Your task to perform on an android device: turn notification dots on Image 0: 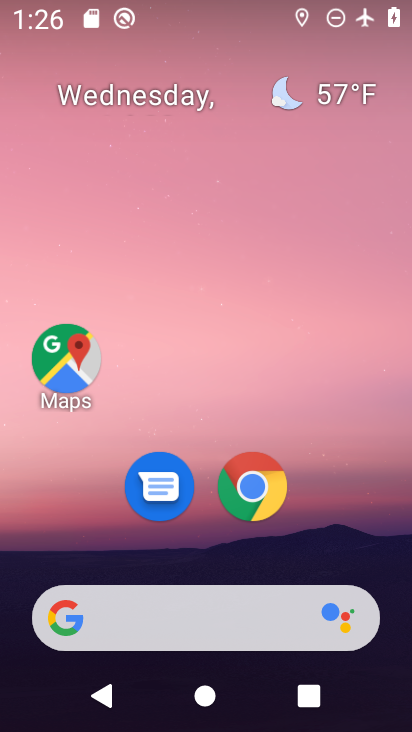
Step 0: drag from (331, 455) to (356, 152)
Your task to perform on an android device: turn notification dots on Image 1: 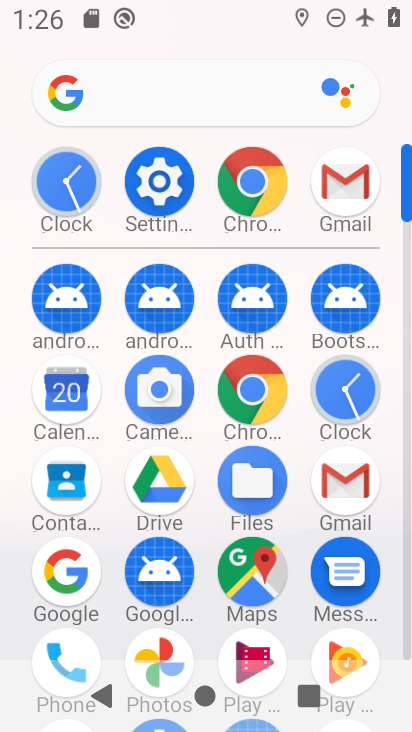
Step 1: click (176, 188)
Your task to perform on an android device: turn notification dots on Image 2: 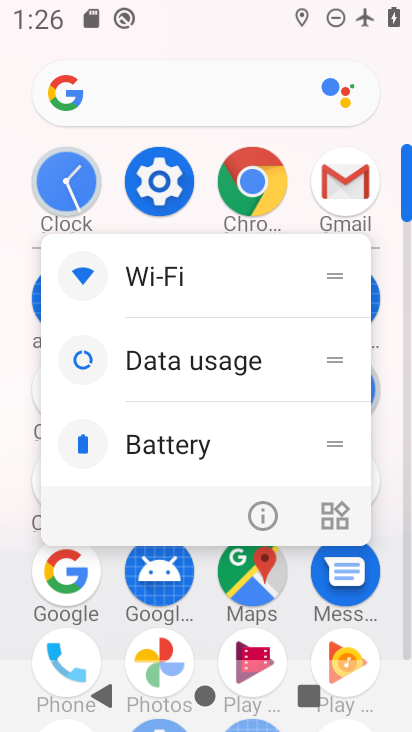
Step 2: click (176, 188)
Your task to perform on an android device: turn notification dots on Image 3: 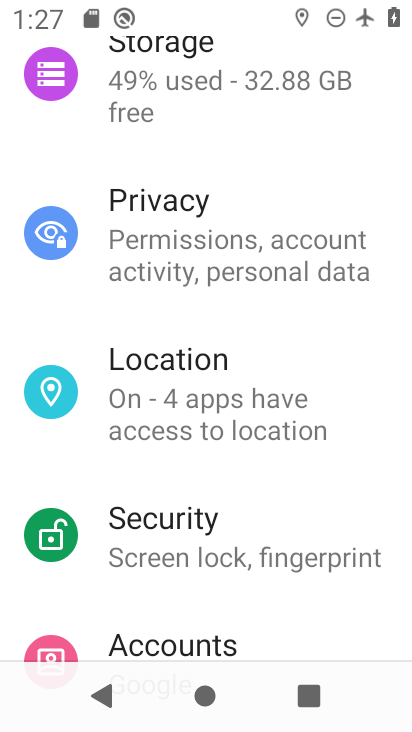
Step 3: drag from (370, 201) to (370, 323)
Your task to perform on an android device: turn notification dots on Image 4: 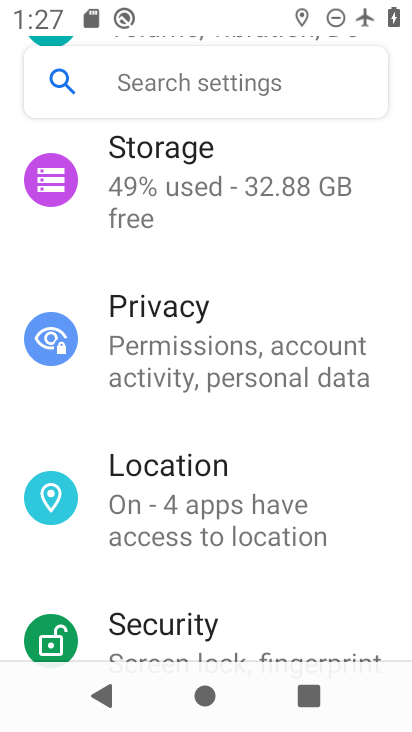
Step 4: drag from (373, 216) to (373, 321)
Your task to perform on an android device: turn notification dots on Image 5: 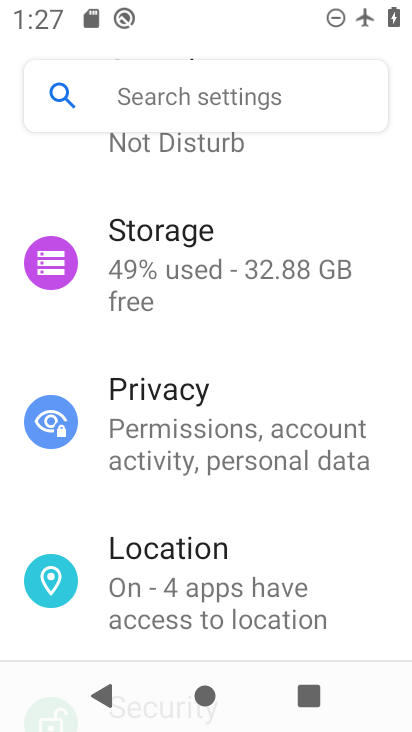
Step 5: drag from (368, 195) to (369, 350)
Your task to perform on an android device: turn notification dots on Image 6: 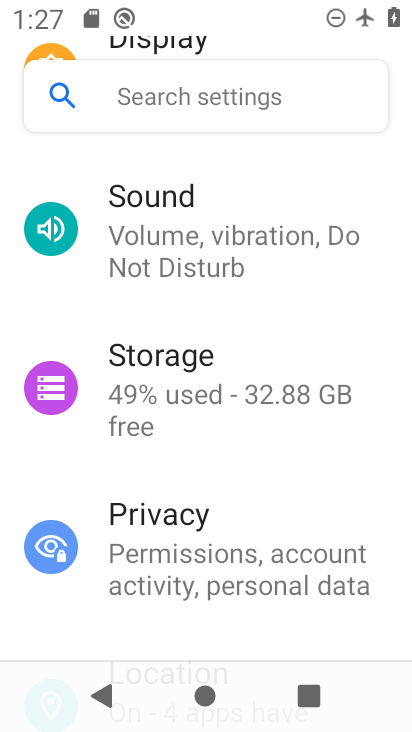
Step 6: drag from (382, 207) to (380, 386)
Your task to perform on an android device: turn notification dots on Image 7: 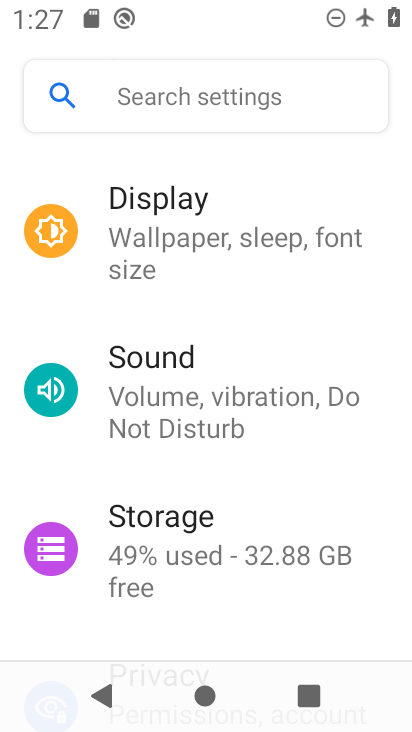
Step 7: drag from (377, 203) to (368, 354)
Your task to perform on an android device: turn notification dots on Image 8: 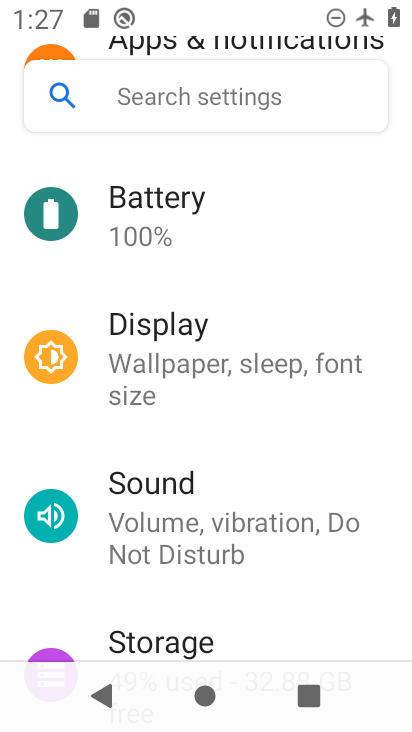
Step 8: drag from (350, 194) to (341, 396)
Your task to perform on an android device: turn notification dots on Image 9: 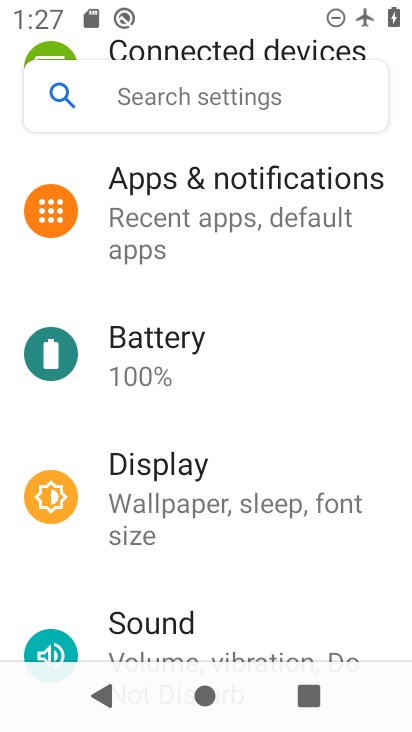
Step 9: drag from (386, 207) to (383, 371)
Your task to perform on an android device: turn notification dots on Image 10: 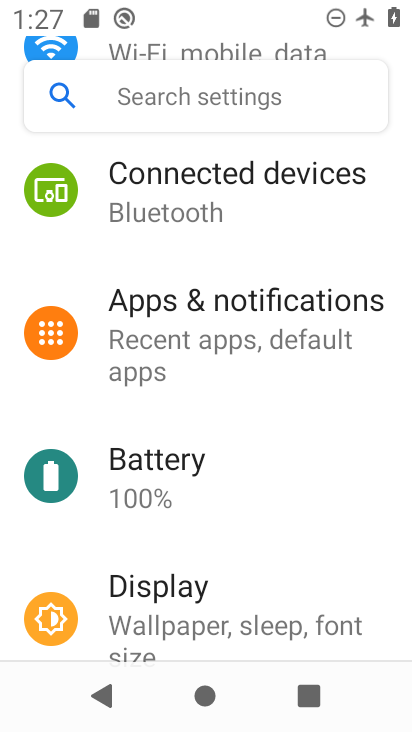
Step 10: drag from (369, 215) to (369, 356)
Your task to perform on an android device: turn notification dots on Image 11: 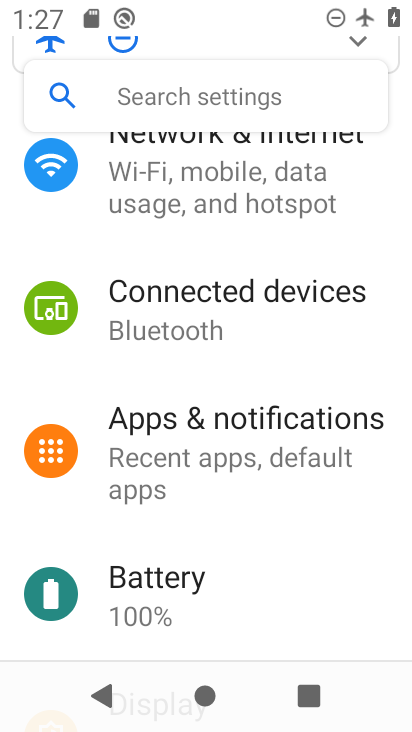
Step 11: click (329, 439)
Your task to perform on an android device: turn notification dots on Image 12: 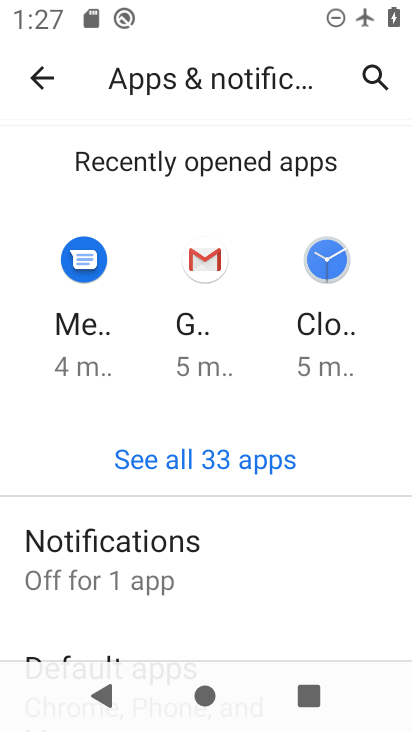
Step 12: click (225, 562)
Your task to perform on an android device: turn notification dots on Image 13: 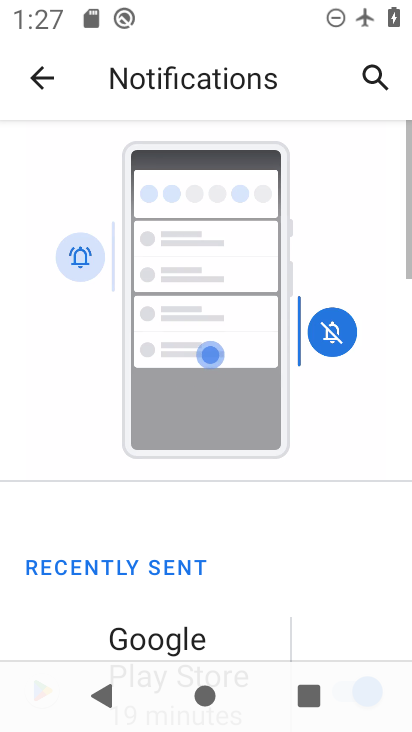
Step 13: drag from (294, 560) to (305, 441)
Your task to perform on an android device: turn notification dots on Image 14: 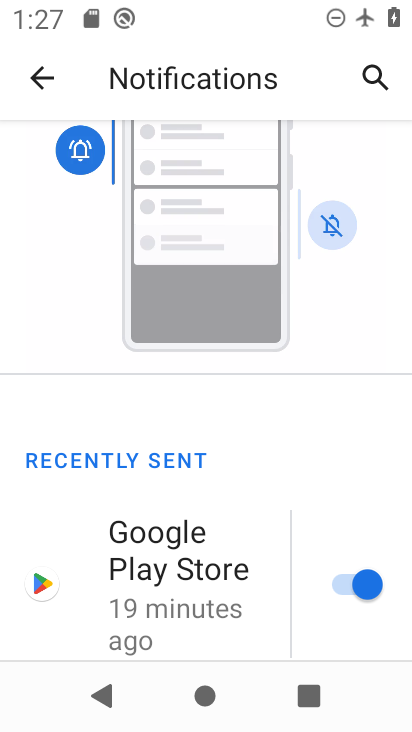
Step 14: drag from (261, 598) to (264, 439)
Your task to perform on an android device: turn notification dots on Image 15: 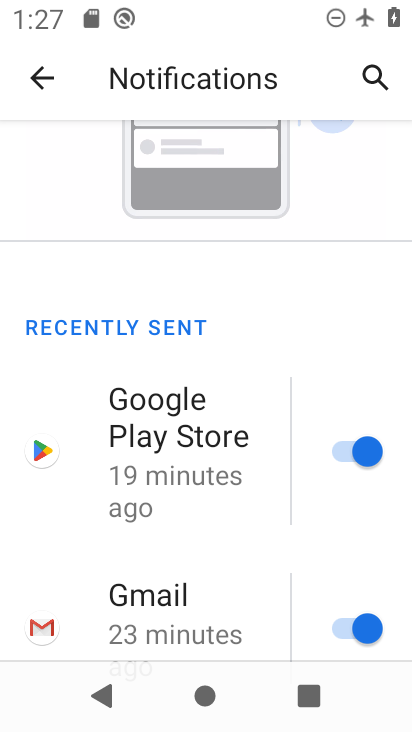
Step 15: drag from (253, 553) to (259, 426)
Your task to perform on an android device: turn notification dots on Image 16: 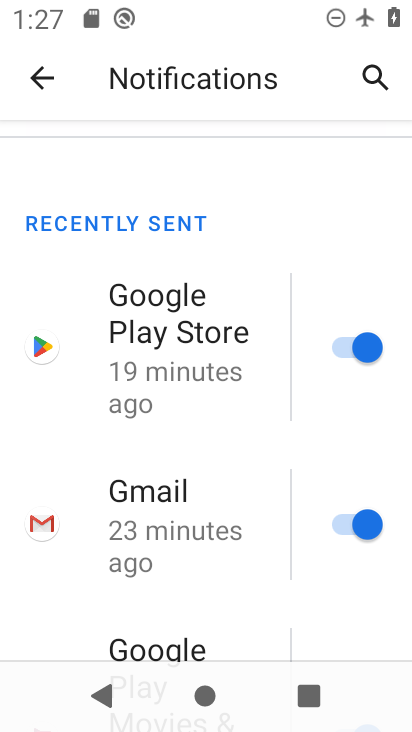
Step 16: drag from (242, 579) to (243, 449)
Your task to perform on an android device: turn notification dots on Image 17: 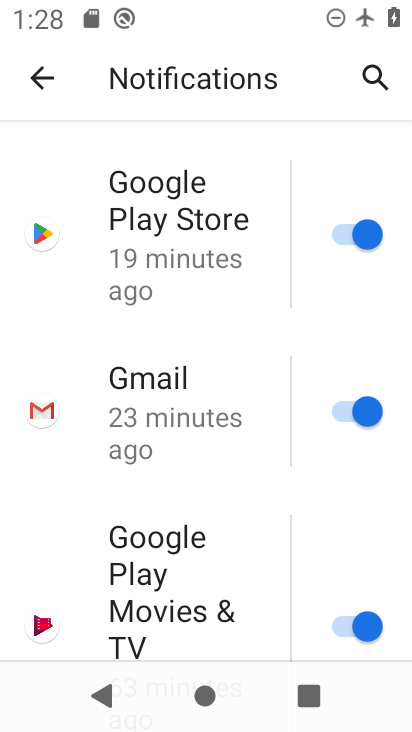
Step 17: drag from (238, 585) to (251, 451)
Your task to perform on an android device: turn notification dots on Image 18: 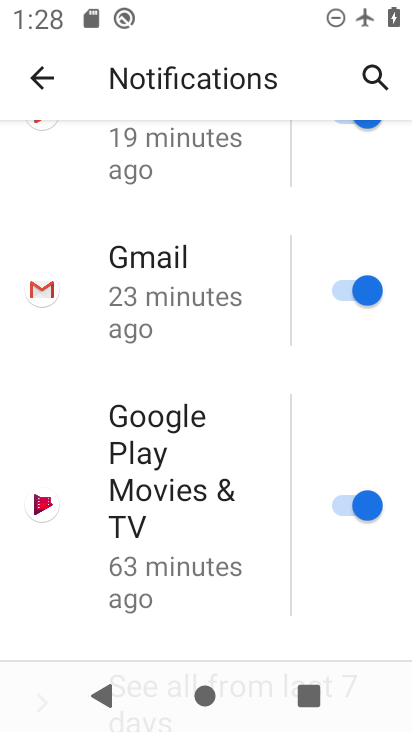
Step 18: drag from (253, 587) to (269, 445)
Your task to perform on an android device: turn notification dots on Image 19: 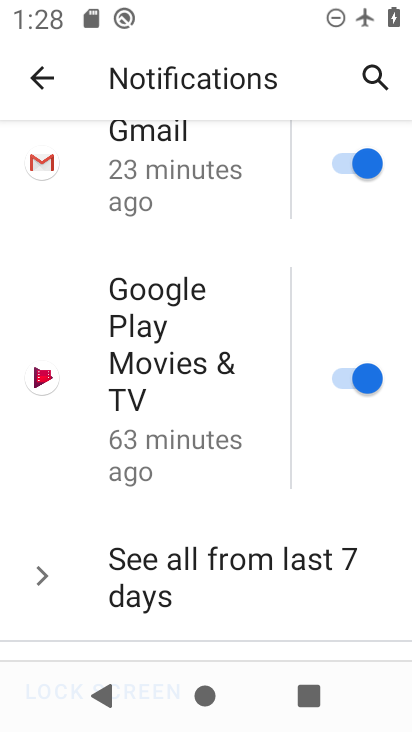
Step 19: drag from (244, 573) to (245, 455)
Your task to perform on an android device: turn notification dots on Image 20: 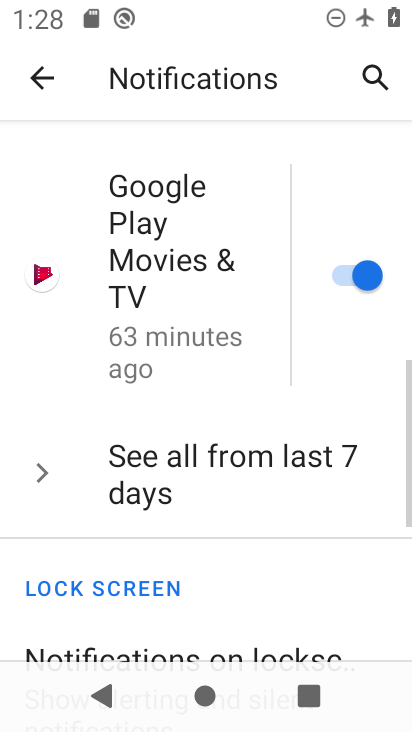
Step 20: drag from (257, 559) to (270, 424)
Your task to perform on an android device: turn notification dots on Image 21: 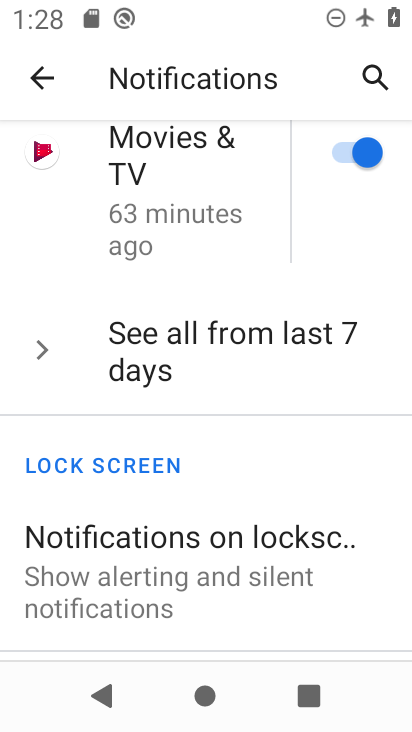
Step 21: drag from (251, 598) to (265, 441)
Your task to perform on an android device: turn notification dots on Image 22: 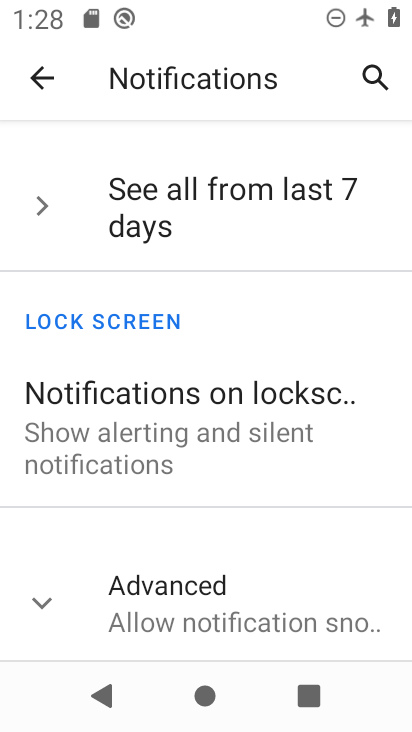
Step 22: click (261, 593)
Your task to perform on an android device: turn notification dots on Image 23: 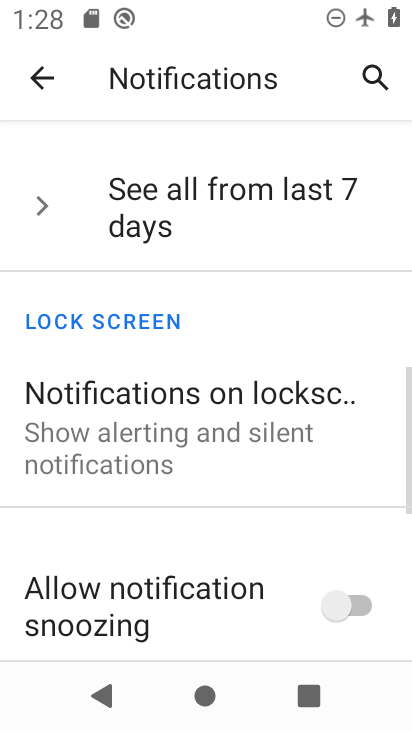
Step 23: task complete